Your task to perform on an android device: Open calendar and show me the second week of next month Image 0: 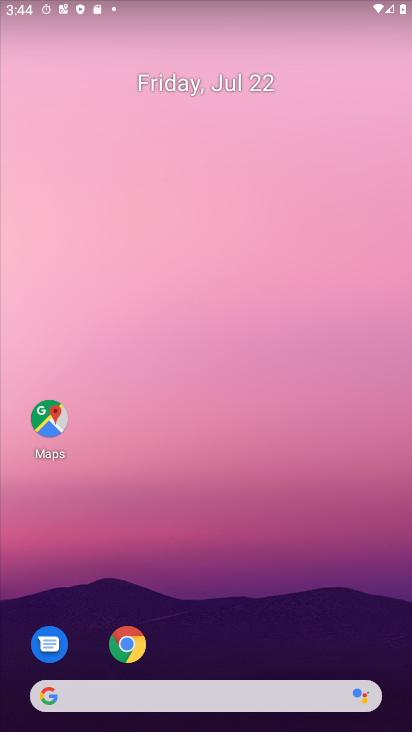
Step 0: press home button
Your task to perform on an android device: Open calendar and show me the second week of next month Image 1: 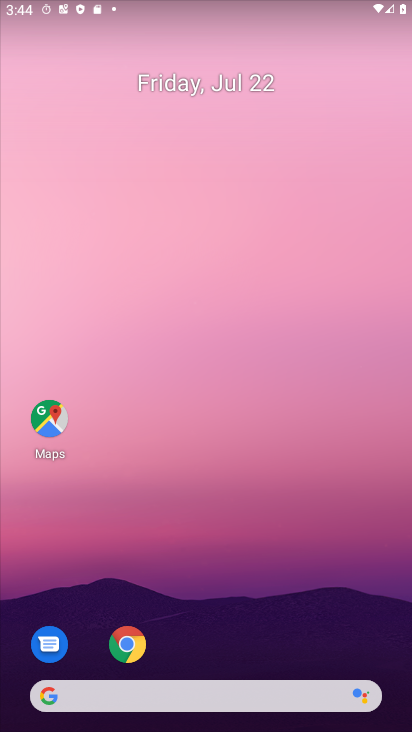
Step 1: drag from (222, 645) to (292, 100)
Your task to perform on an android device: Open calendar and show me the second week of next month Image 2: 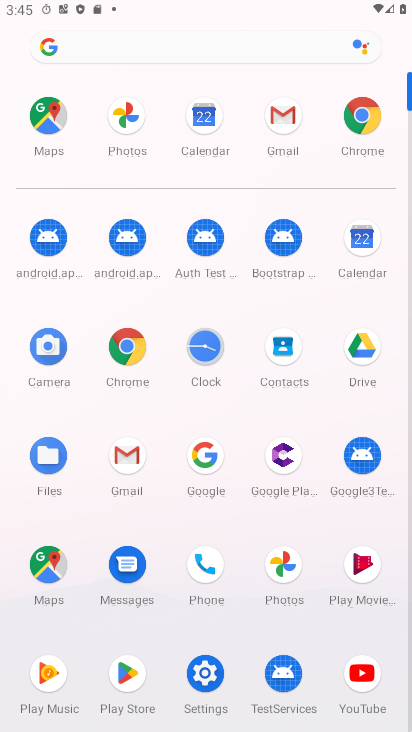
Step 2: click (367, 241)
Your task to perform on an android device: Open calendar and show me the second week of next month Image 3: 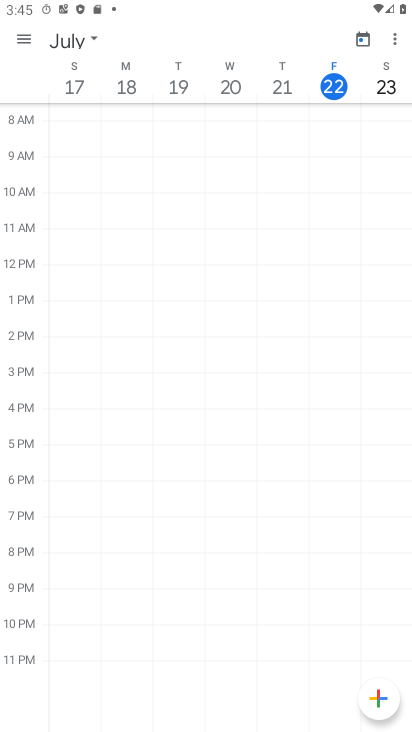
Step 3: click (79, 47)
Your task to perform on an android device: Open calendar and show me the second week of next month Image 4: 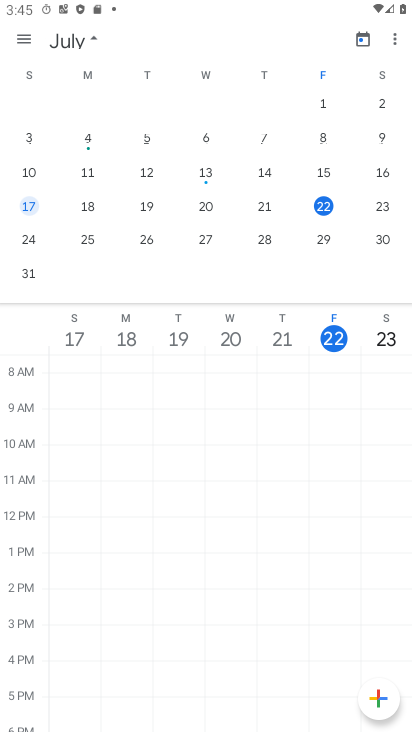
Step 4: drag from (339, 162) to (2, 185)
Your task to perform on an android device: Open calendar and show me the second week of next month Image 5: 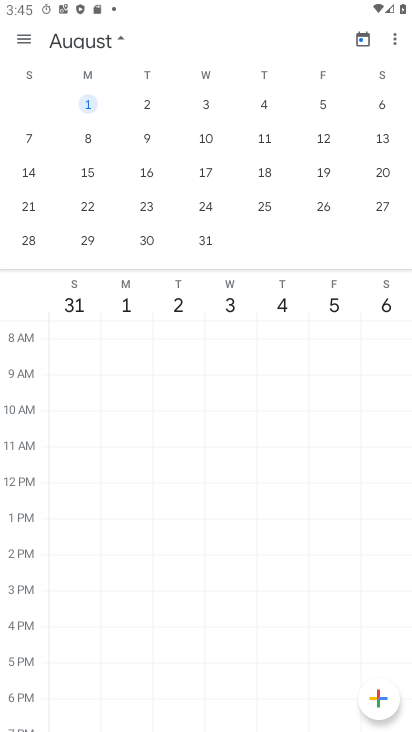
Step 5: click (90, 142)
Your task to perform on an android device: Open calendar and show me the second week of next month Image 6: 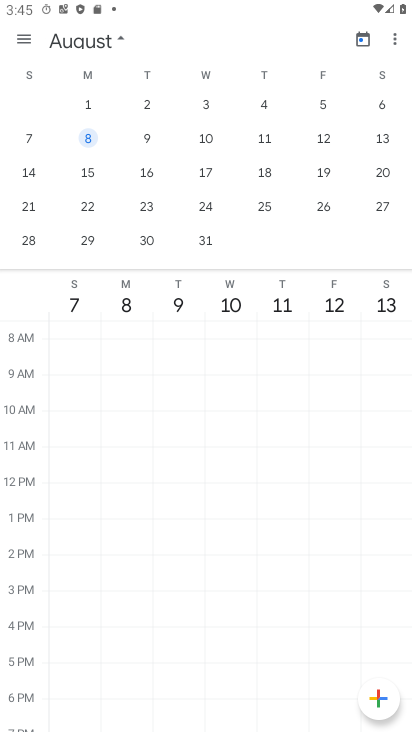
Step 6: click (153, 137)
Your task to perform on an android device: Open calendar and show me the second week of next month Image 7: 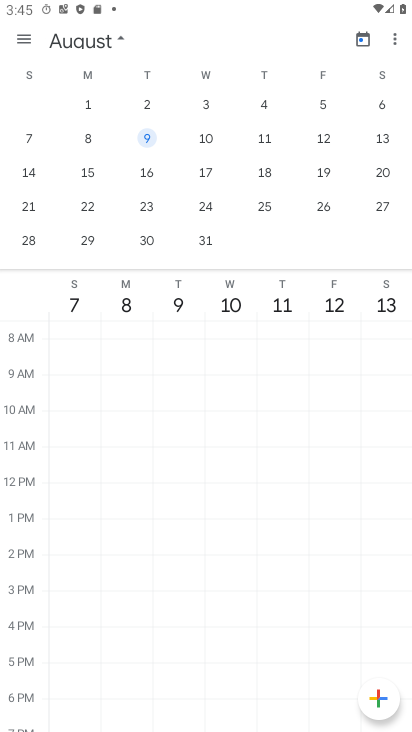
Step 7: click (210, 138)
Your task to perform on an android device: Open calendar and show me the second week of next month Image 8: 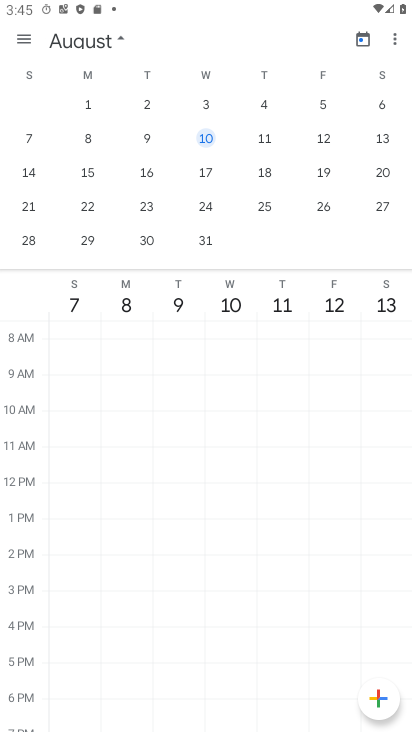
Step 8: click (270, 143)
Your task to perform on an android device: Open calendar and show me the second week of next month Image 9: 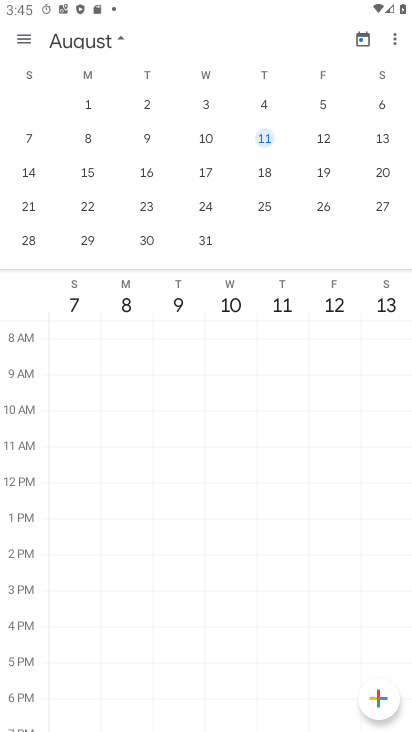
Step 9: click (324, 140)
Your task to perform on an android device: Open calendar and show me the second week of next month Image 10: 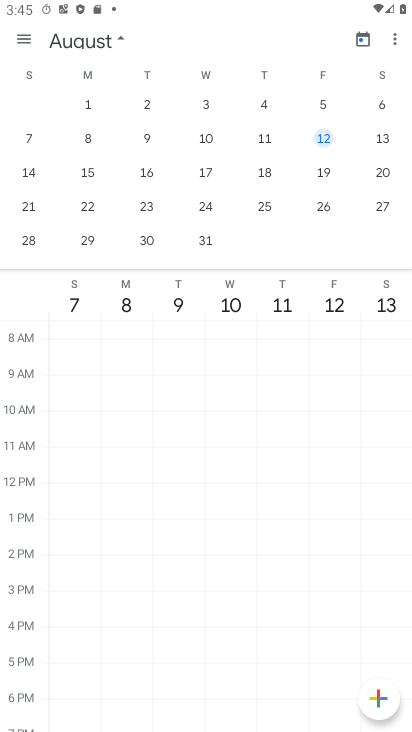
Step 10: click (383, 140)
Your task to perform on an android device: Open calendar and show me the second week of next month Image 11: 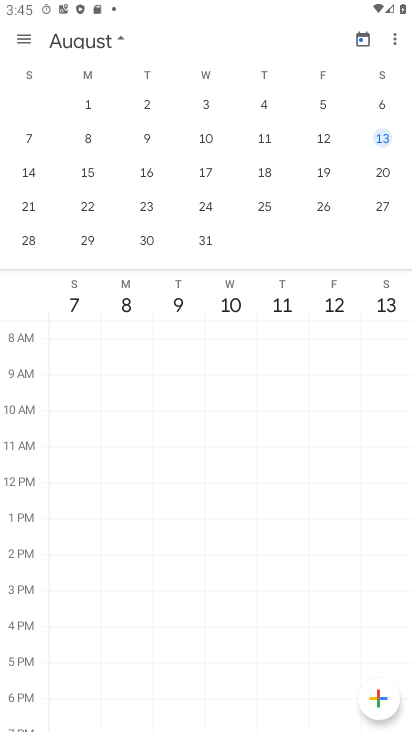
Step 11: click (33, 172)
Your task to perform on an android device: Open calendar and show me the second week of next month Image 12: 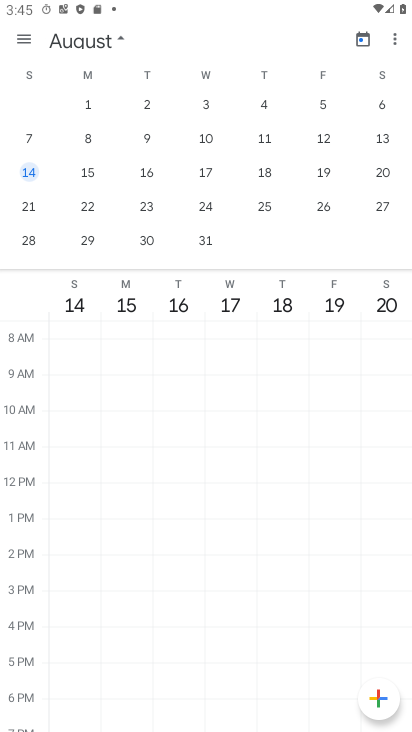
Step 12: task complete